Your task to perform on an android device: change notification settings in the gmail app Image 0: 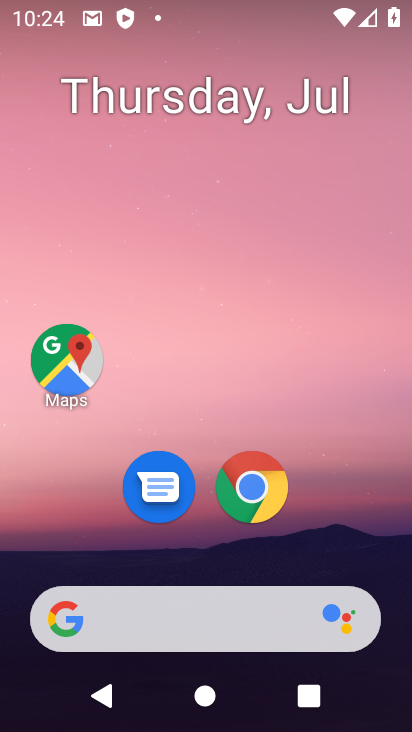
Step 0: drag from (216, 566) to (276, 0)
Your task to perform on an android device: change notification settings in the gmail app Image 1: 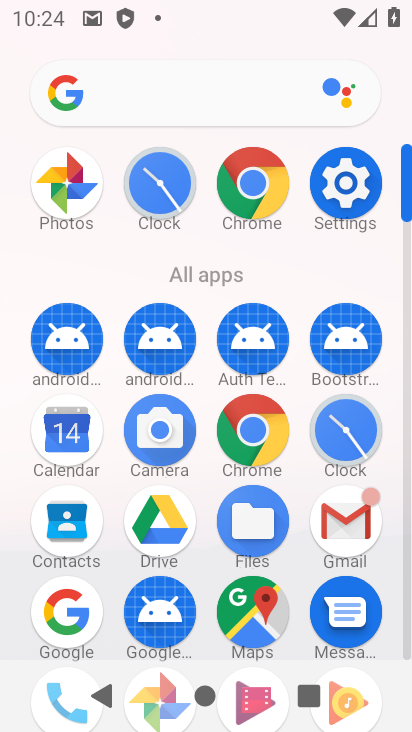
Step 1: click (342, 513)
Your task to perform on an android device: change notification settings in the gmail app Image 2: 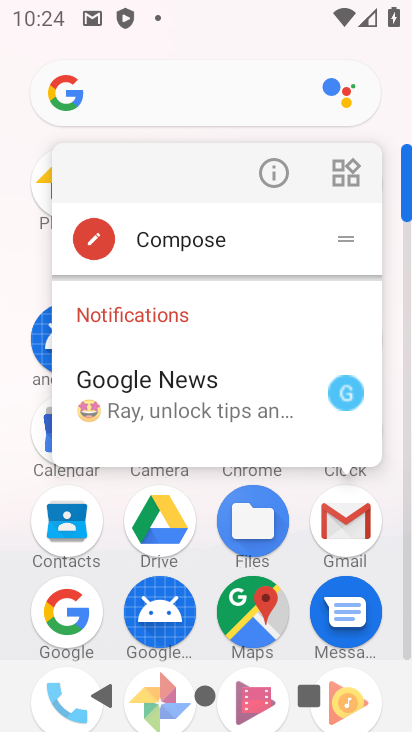
Step 2: click (282, 160)
Your task to perform on an android device: change notification settings in the gmail app Image 3: 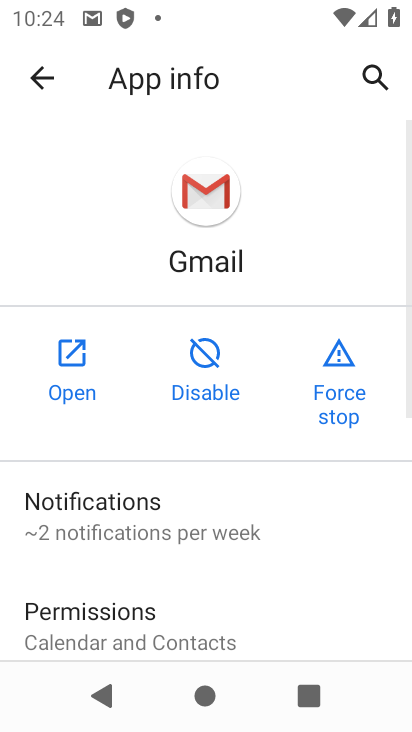
Step 3: click (182, 519)
Your task to perform on an android device: change notification settings in the gmail app Image 4: 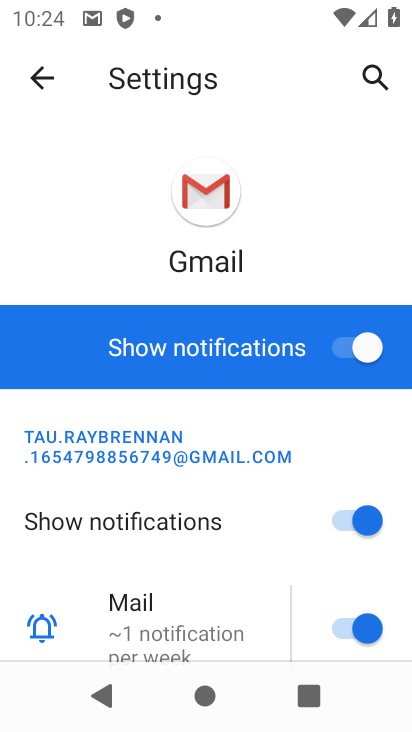
Step 4: click (367, 517)
Your task to perform on an android device: change notification settings in the gmail app Image 5: 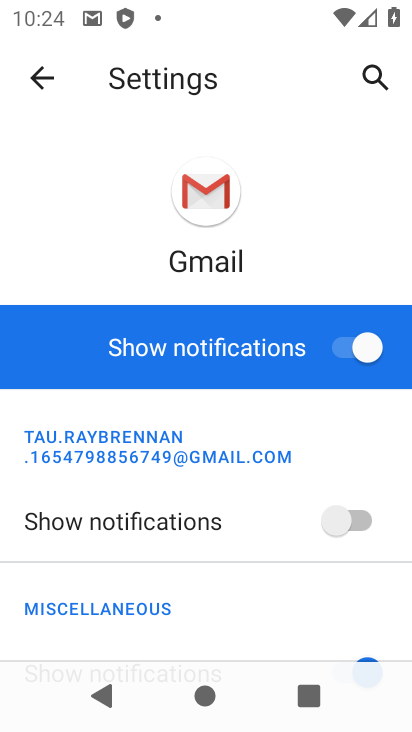
Step 5: task complete